Your task to perform on an android device: turn vacation reply on in the gmail app Image 0: 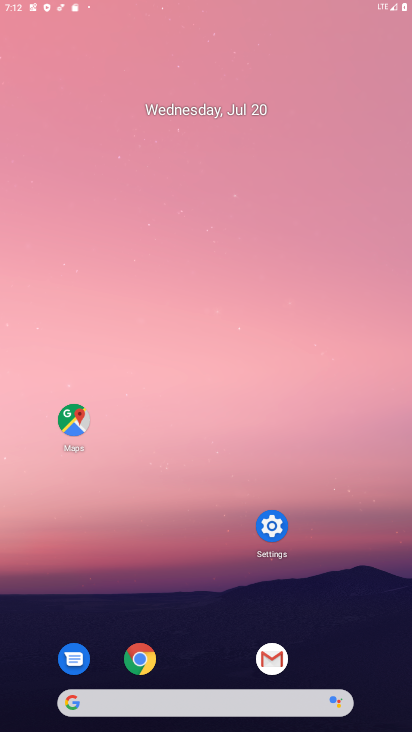
Step 0: press home button
Your task to perform on an android device: turn vacation reply on in the gmail app Image 1: 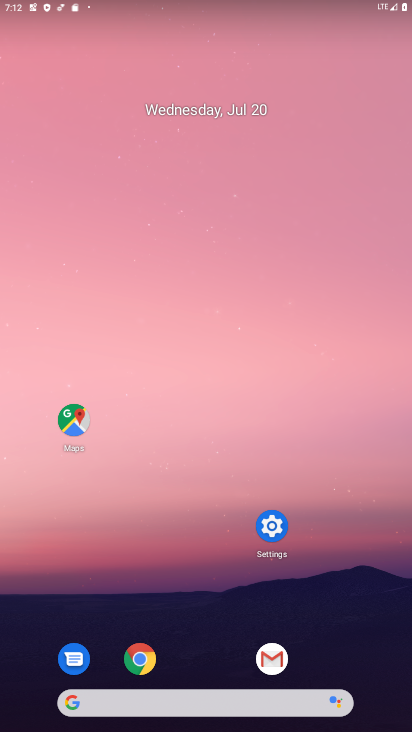
Step 1: click (144, 663)
Your task to perform on an android device: turn vacation reply on in the gmail app Image 2: 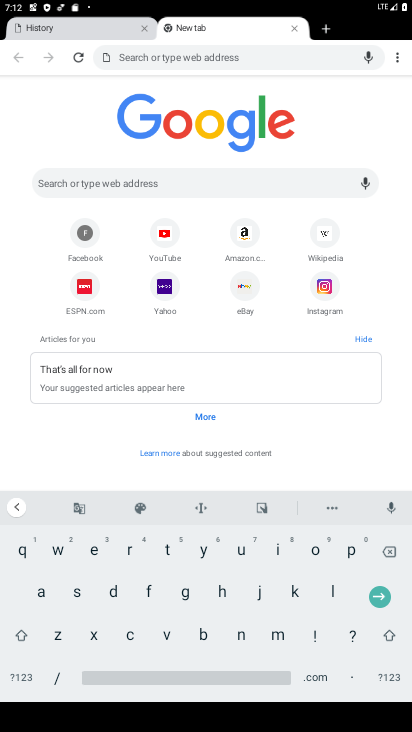
Step 2: press home button
Your task to perform on an android device: turn vacation reply on in the gmail app Image 3: 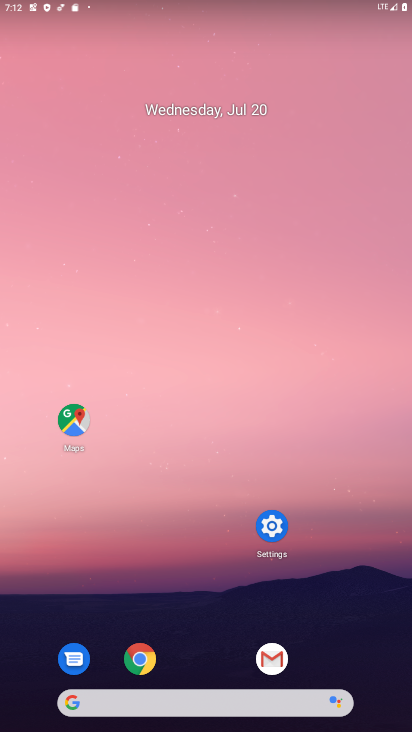
Step 3: click (252, 656)
Your task to perform on an android device: turn vacation reply on in the gmail app Image 4: 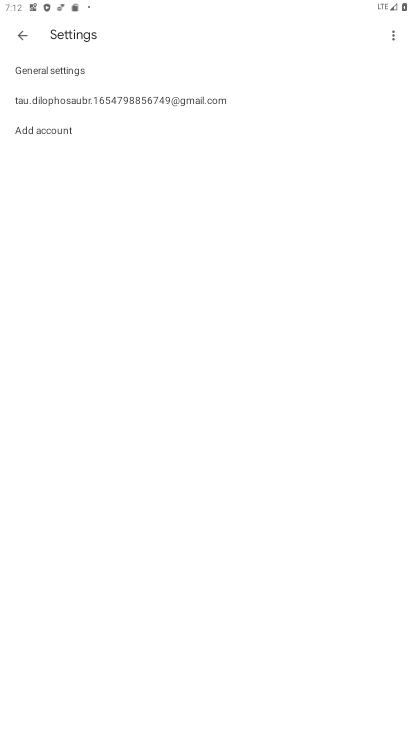
Step 4: click (83, 100)
Your task to perform on an android device: turn vacation reply on in the gmail app Image 5: 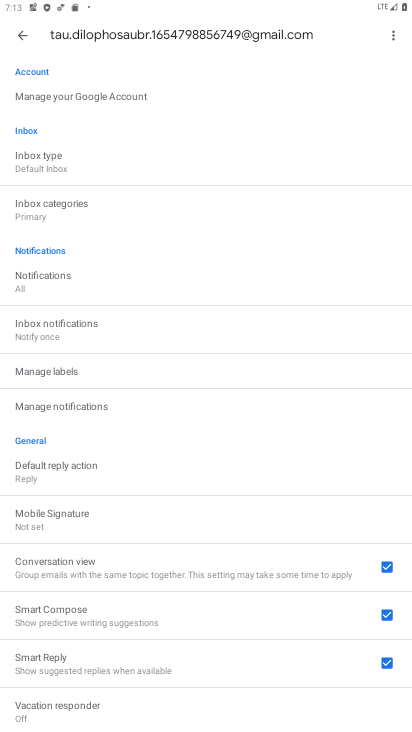
Step 5: click (142, 707)
Your task to perform on an android device: turn vacation reply on in the gmail app Image 6: 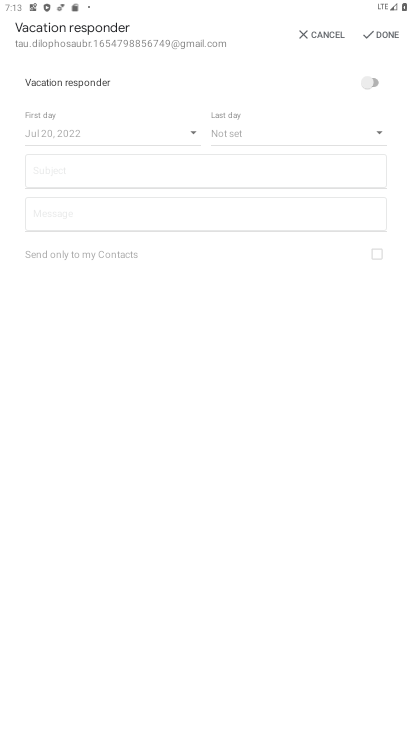
Step 6: click (369, 79)
Your task to perform on an android device: turn vacation reply on in the gmail app Image 7: 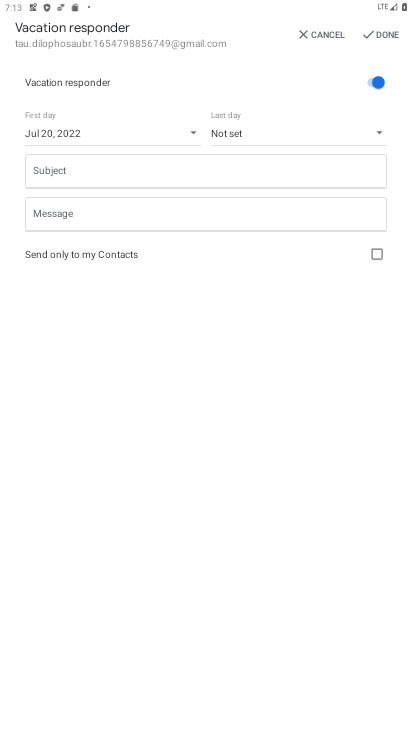
Step 7: task complete